Your task to perform on an android device: turn pop-ups on in chrome Image 0: 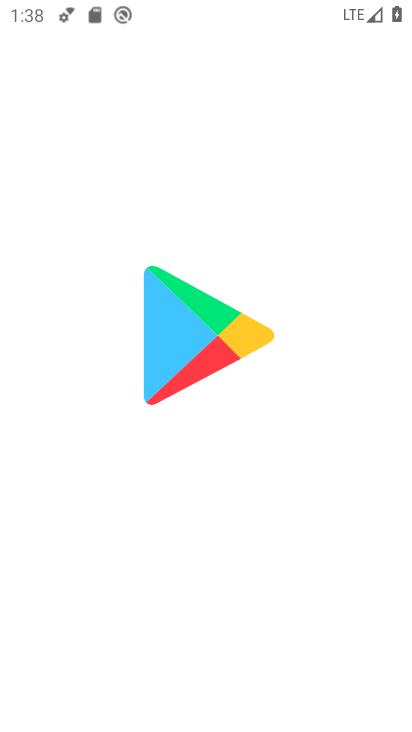
Step 0: drag from (281, 699) to (193, 194)
Your task to perform on an android device: turn pop-ups on in chrome Image 1: 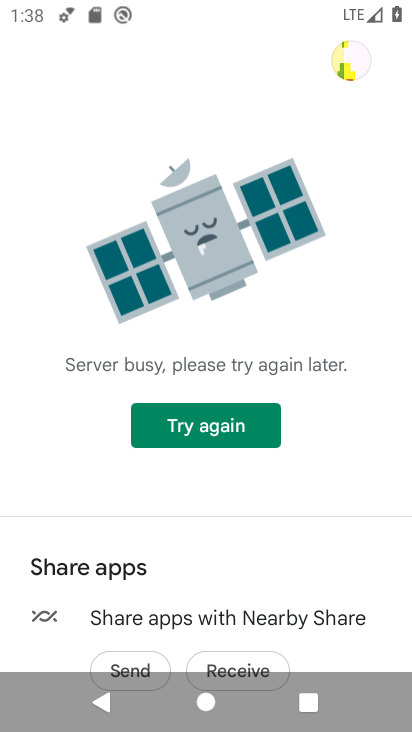
Step 1: press home button
Your task to perform on an android device: turn pop-ups on in chrome Image 2: 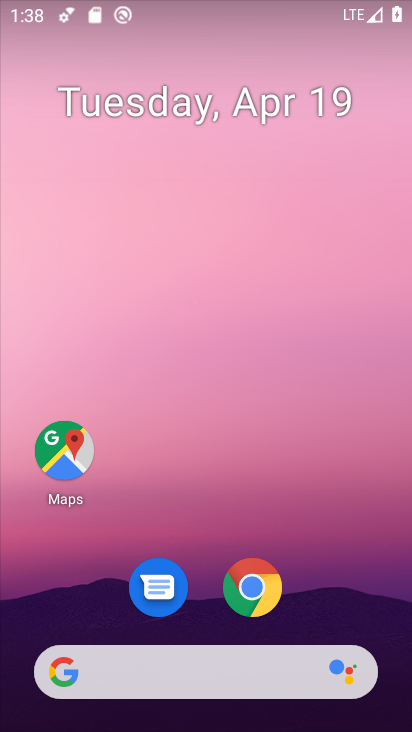
Step 2: drag from (319, 573) to (217, 245)
Your task to perform on an android device: turn pop-ups on in chrome Image 3: 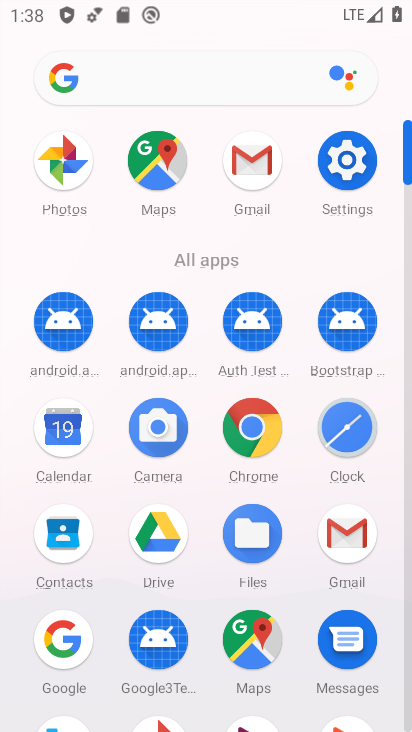
Step 3: click (247, 439)
Your task to perform on an android device: turn pop-ups on in chrome Image 4: 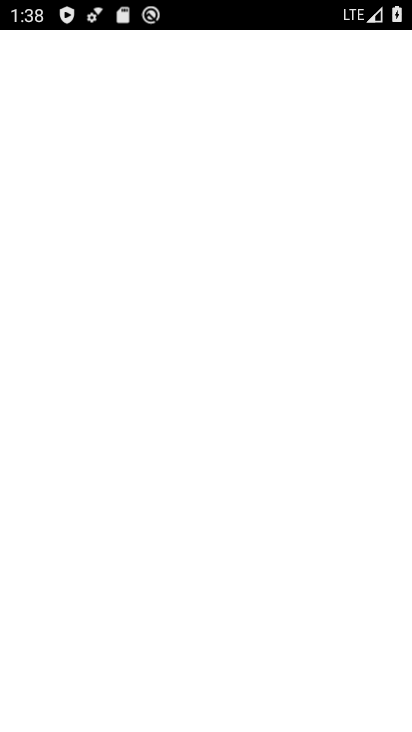
Step 4: click (247, 428)
Your task to perform on an android device: turn pop-ups on in chrome Image 5: 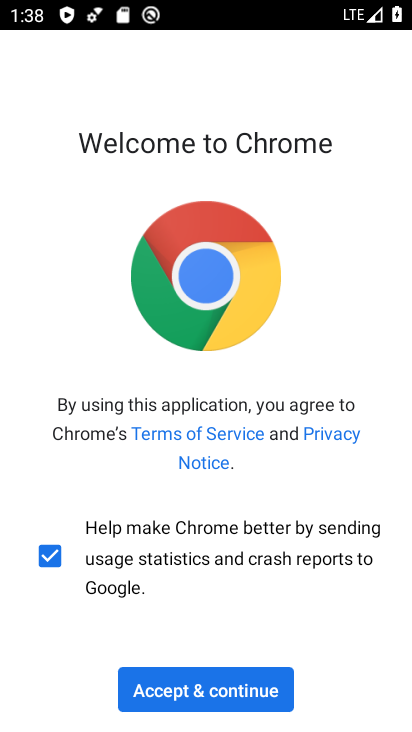
Step 5: click (209, 685)
Your task to perform on an android device: turn pop-ups on in chrome Image 6: 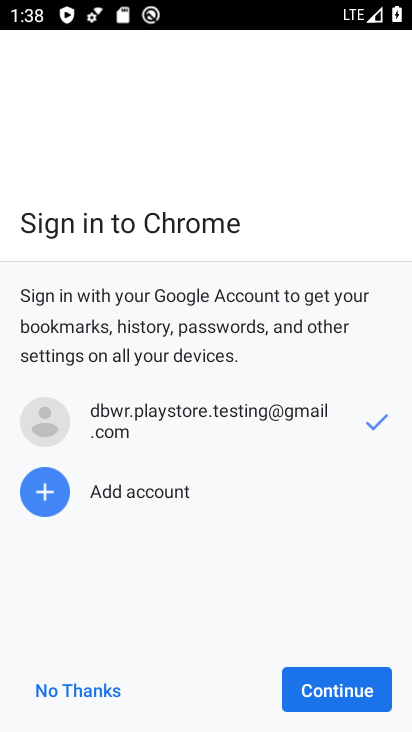
Step 6: click (348, 691)
Your task to perform on an android device: turn pop-ups on in chrome Image 7: 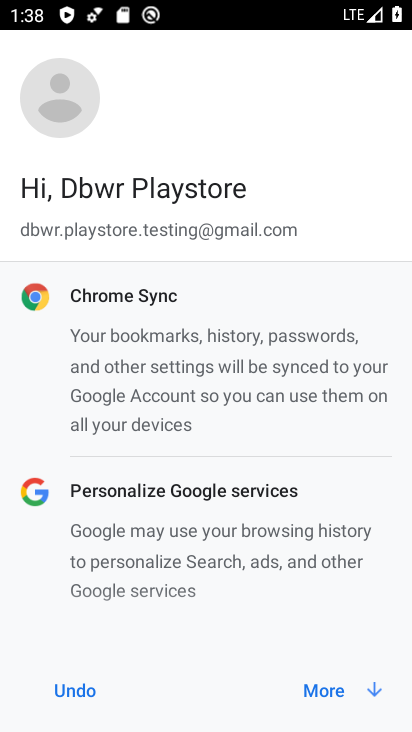
Step 7: click (326, 672)
Your task to perform on an android device: turn pop-ups on in chrome Image 8: 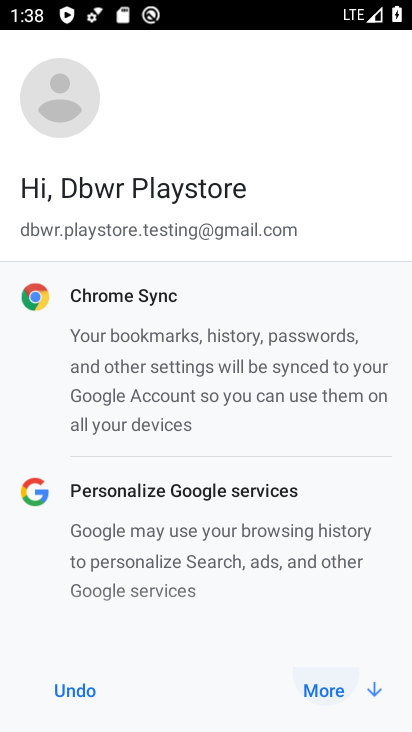
Step 8: click (324, 679)
Your task to perform on an android device: turn pop-ups on in chrome Image 9: 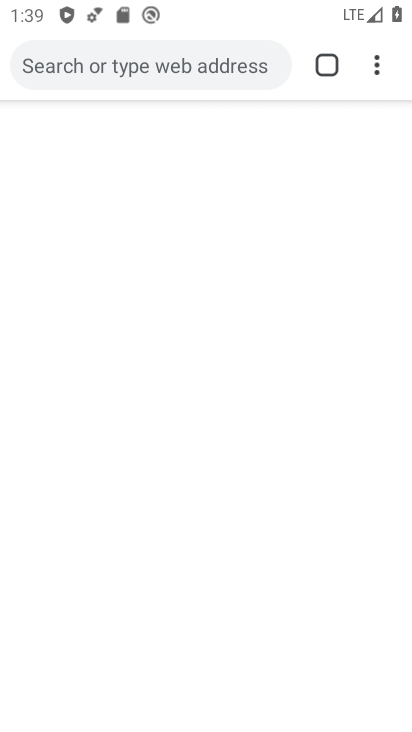
Step 9: click (324, 679)
Your task to perform on an android device: turn pop-ups on in chrome Image 10: 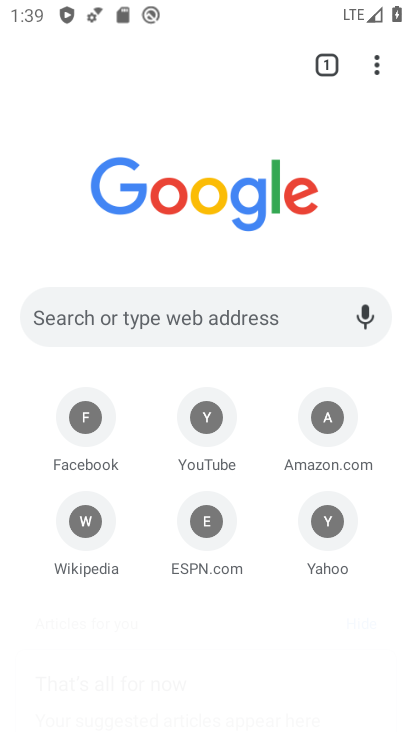
Step 10: click (325, 686)
Your task to perform on an android device: turn pop-ups on in chrome Image 11: 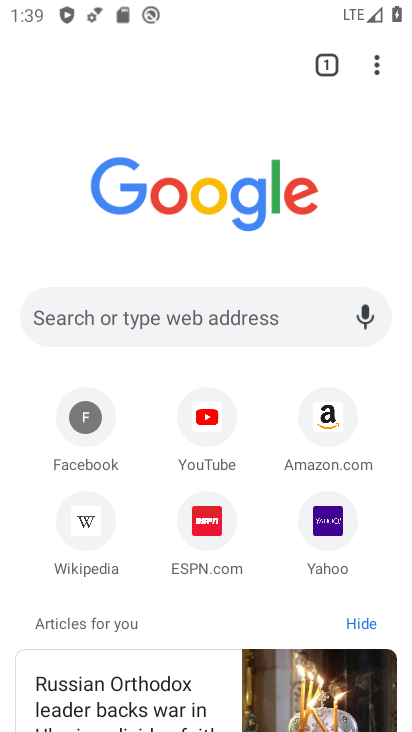
Step 11: click (375, 60)
Your task to perform on an android device: turn pop-ups on in chrome Image 12: 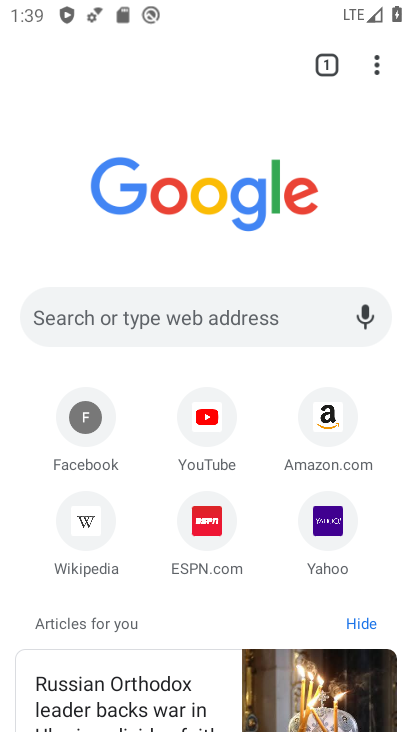
Step 12: click (373, 70)
Your task to perform on an android device: turn pop-ups on in chrome Image 13: 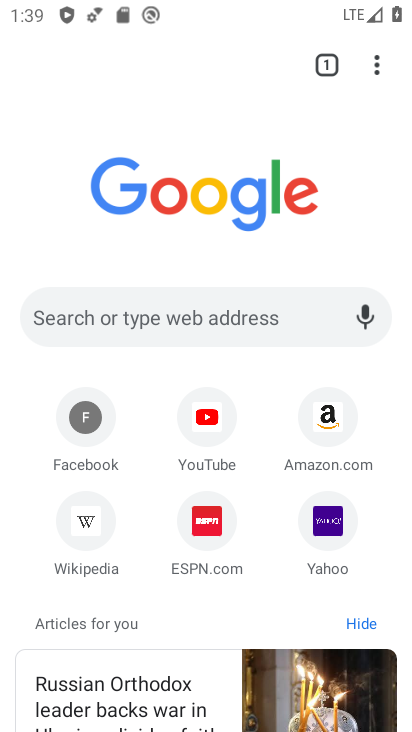
Step 13: click (378, 69)
Your task to perform on an android device: turn pop-ups on in chrome Image 14: 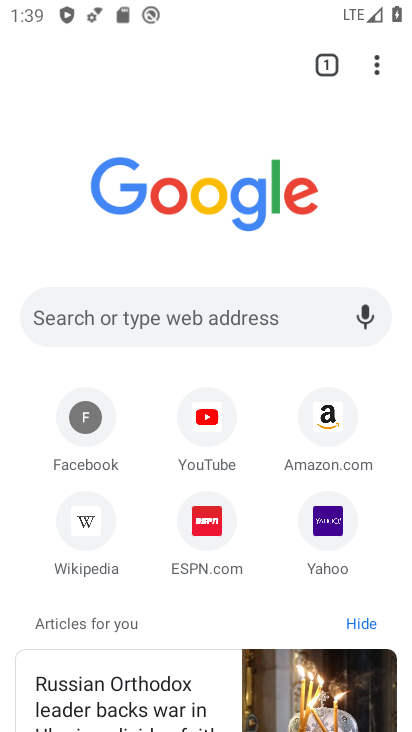
Step 14: click (372, 61)
Your task to perform on an android device: turn pop-ups on in chrome Image 15: 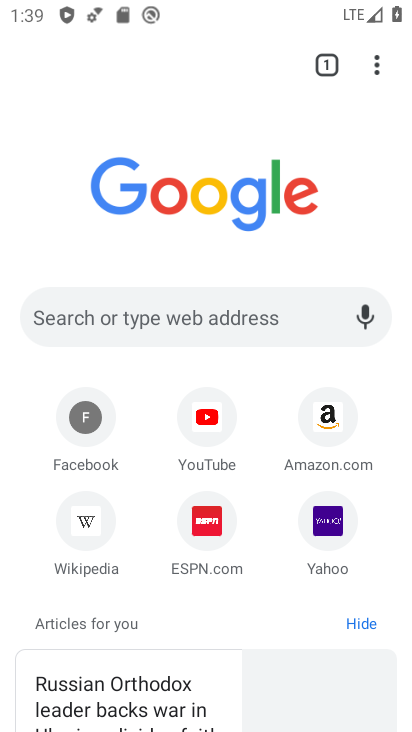
Step 15: click (377, 61)
Your task to perform on an android device: turn pop-ups on in chrome Image 16: 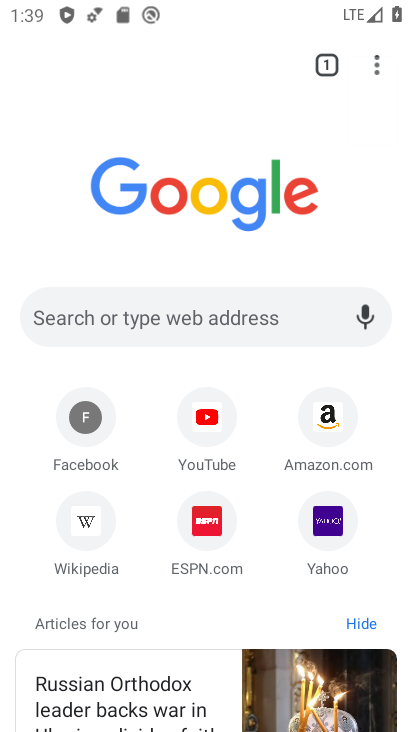
Step 16: click (377, 61)
Your task to perform on an android device: turn pop-ups on in chrome Image 17: 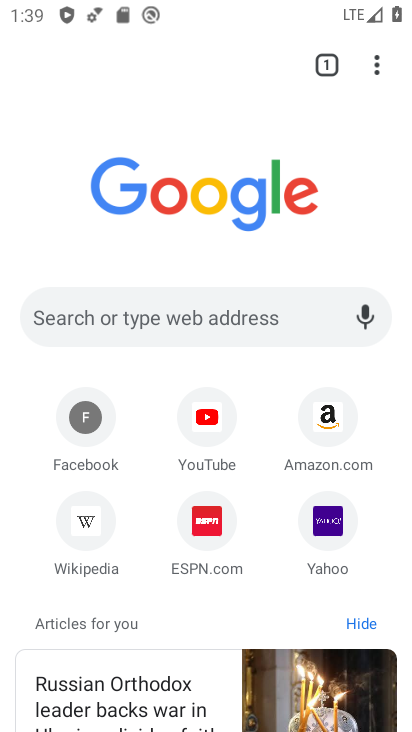
Step 17: click (377, 60)
Your task to perform on an android device: turn pop-ups on in chrome Image 18: 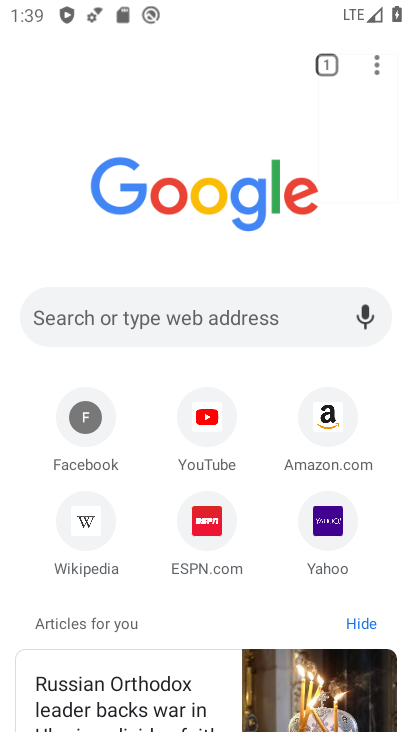
Step 18: click (377, 60)
Your task to perform on an android device: turn pop-ups on in chrome Image 19: 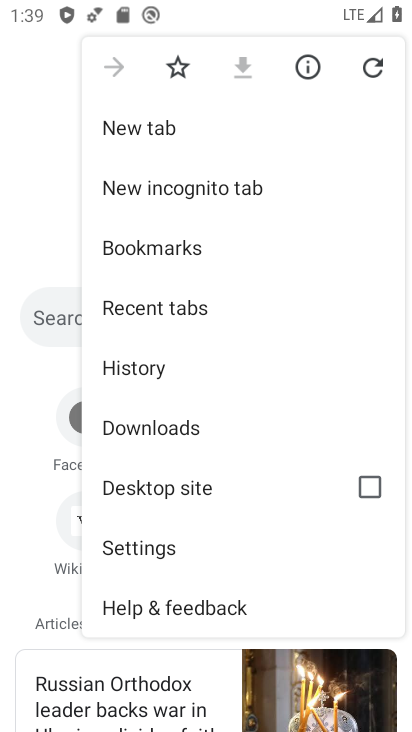
Step 19: click (135, 537)
Your task to perform on an android device: turn pop-ups on in chrome Image 20: 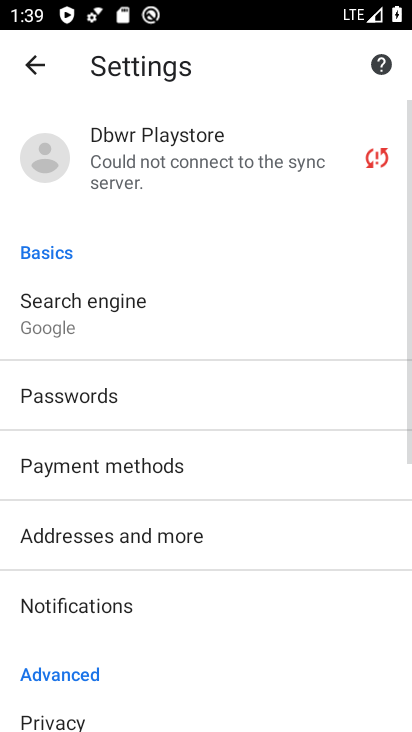
Step 20: drag from (238, 576) to (212, 174)
Your task to perform on an android device: turn pop-ups on in chrome Image 21: 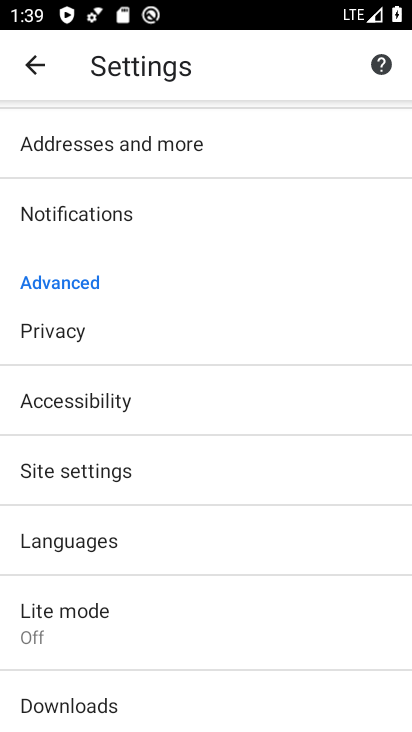
Step 21: click (72, 466)
Your task to perform on an android device: turn pop-ups on in chrome Image 22: 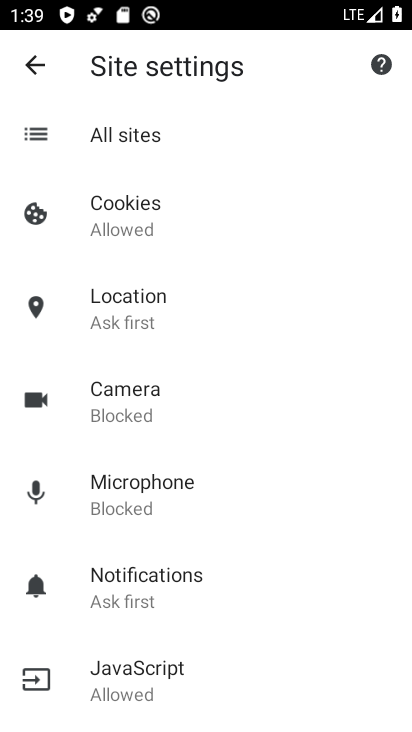
Step 22: drag from (211, 643) to (222, 240)
Your task to perform on an android device: turn pop-ups on in chrome Image 23: 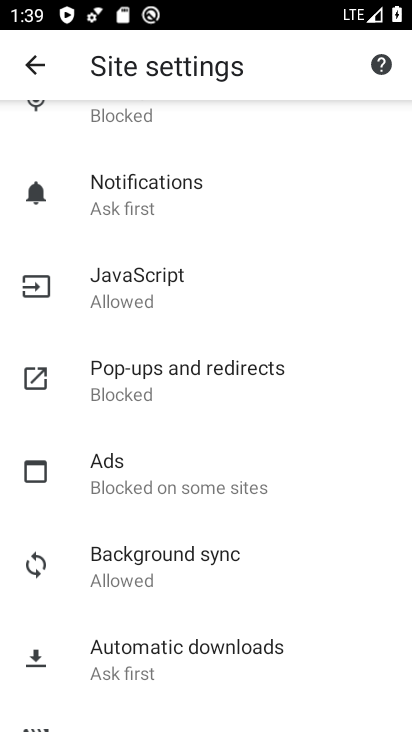
Step 23: drag from (156, 524) to (147, 200)
Your task to perform on an android device: turn pop-ups on in chrome Image 24: 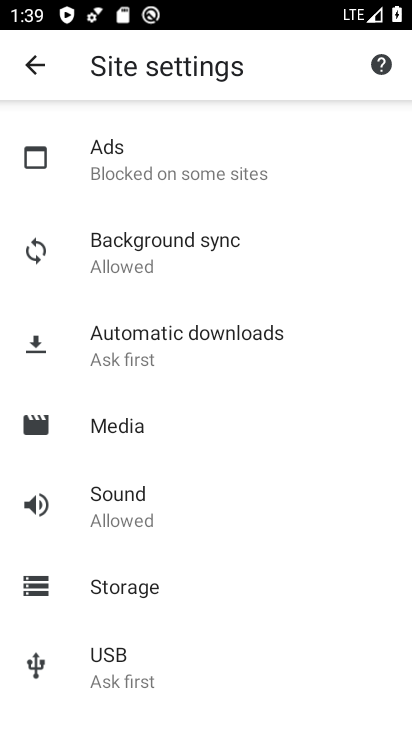
Step 24: click (181, 604)
Your task to perform on an android device: turn pop-ups on in chrome Image 25: 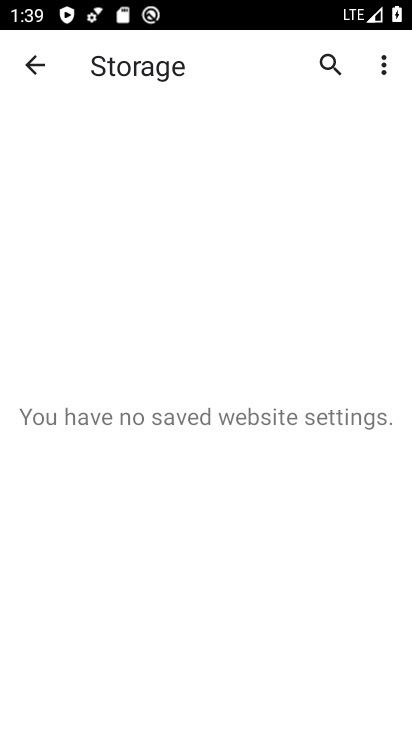
Step 25: click (166, 566)
Your task to perform on an android device: turn pop-ups on in chrome Image 26: 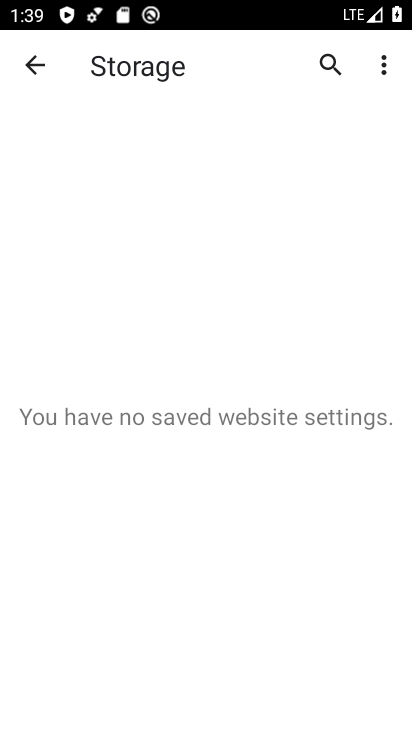
Step 26: click (31, 56)
Your task to perform on an android device: turn pop-ups on in chrome Image 27: 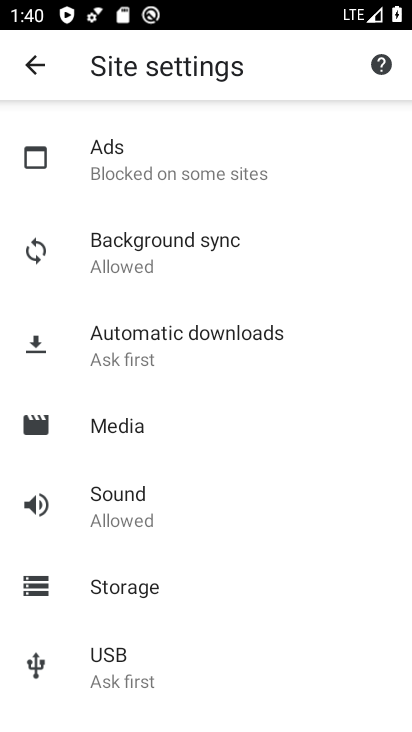
Step 27: click (282, 452)
Your task to perform on an android device: turn pop-ups on in chrome Image 28: 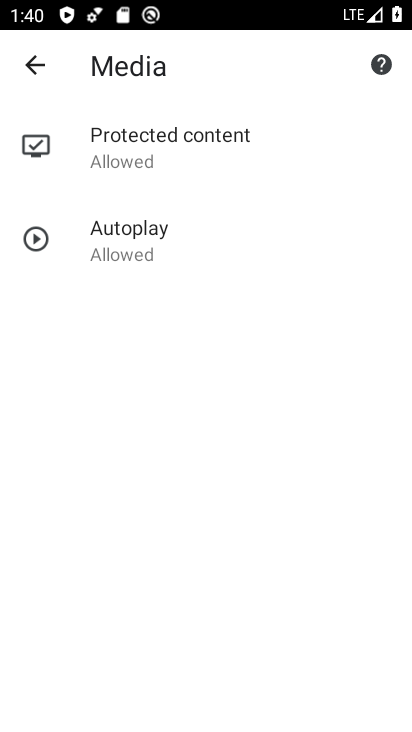
Step 28: click (27, 69)
Your task to perform on an android device: turn pop-ups on in chrome Image 29: 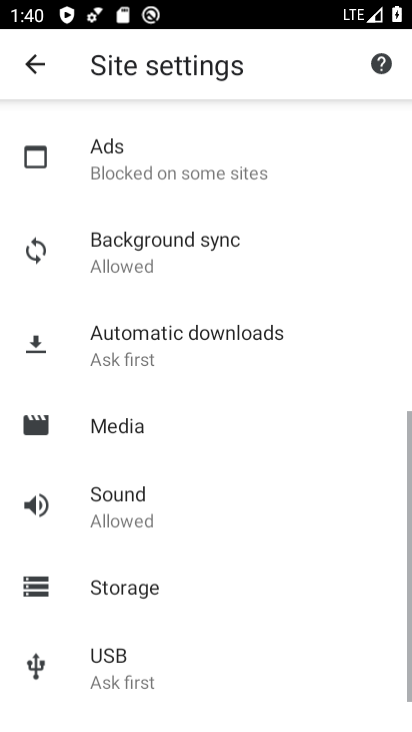
Step 29: click (28, 71)
Your task to perform on an android device: turn pop-ups on in chrome Image 30: 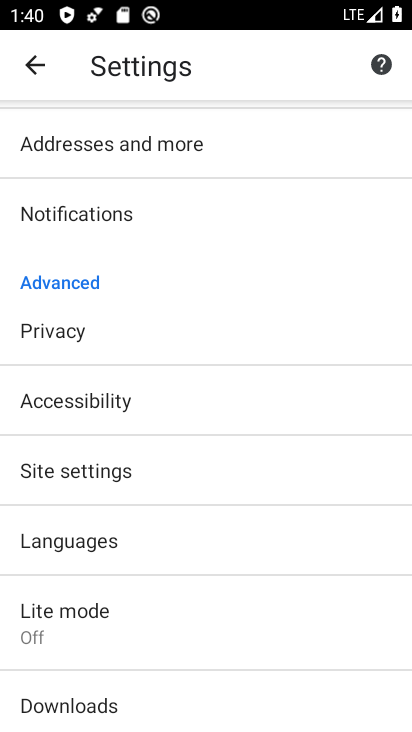
Step 30: click (70, 474)
Your task to perform on an android device: turn pop-ups on in chrome Image 31: 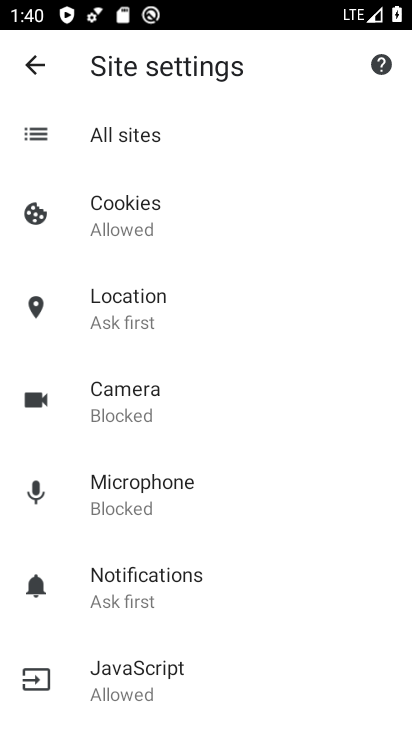
Step 31: click (233, 287)
Your task to perform on an android device: turn pop-ups on in chrome Image 32: 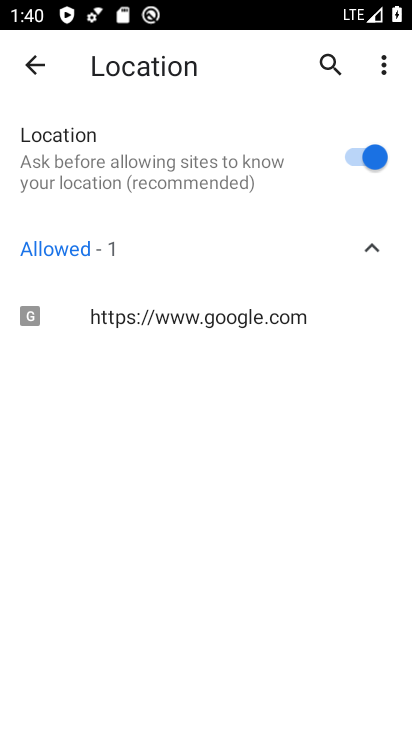
Step 32: click (33, 63)
Your task to perform on an android device: turn pop-ups on in chrome Image 33: 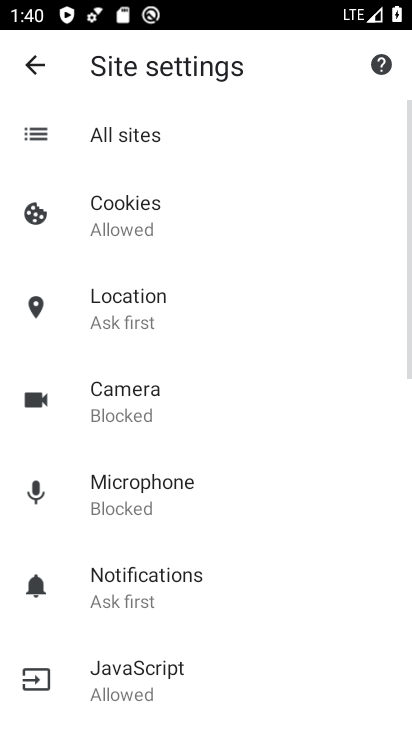
Step 33: drag from (162, 508) to (142, 165)
Your task to perform on an android device: turn pop-ups on in chrome Image 34: 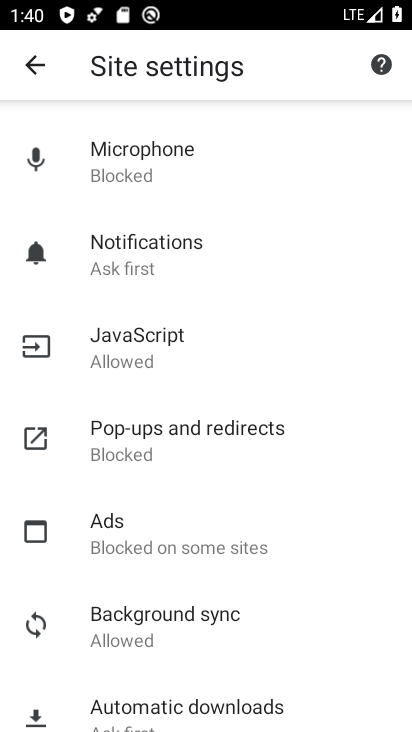
Step 34: click (151, 438)
Your task to perform on an android device: turn pop-ups on in chrome Image 35: 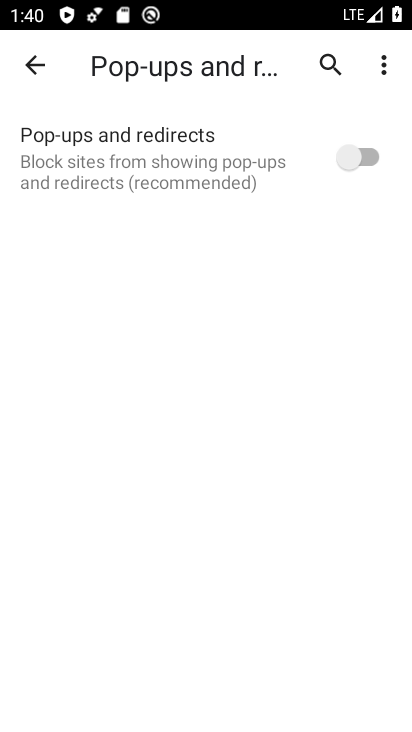
Step 35: click (354, 150)
Your task to perform on an android device: turn pop-ups on in chrome Image 36: 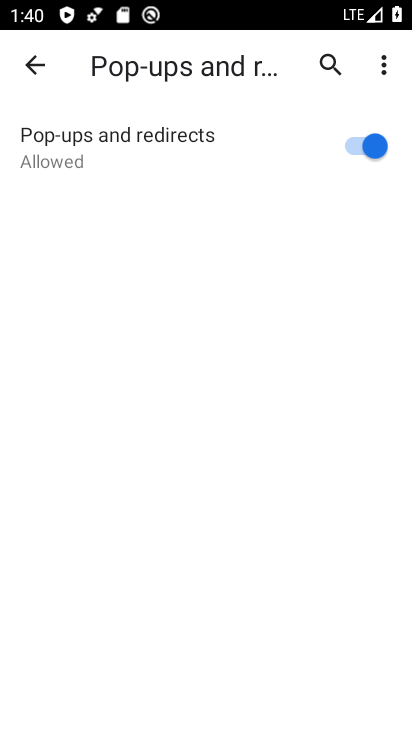
Step 36: click (353, 159)
Your task to perform on an android device: turn pop-ups on in chrome Image 37: 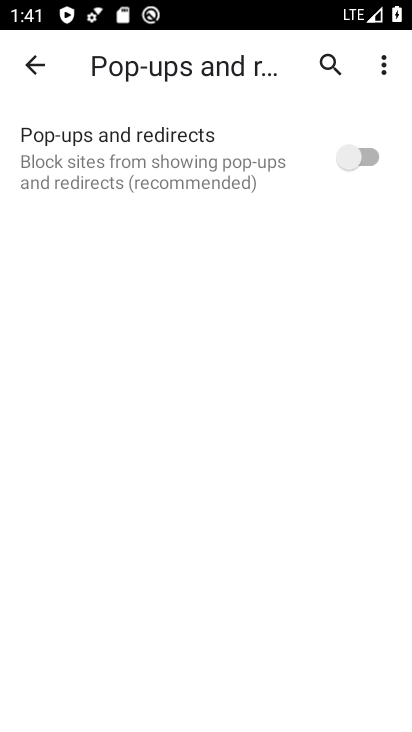
Step 37: task complete